Your task to perform on an android device: Go to location settings Image 0: 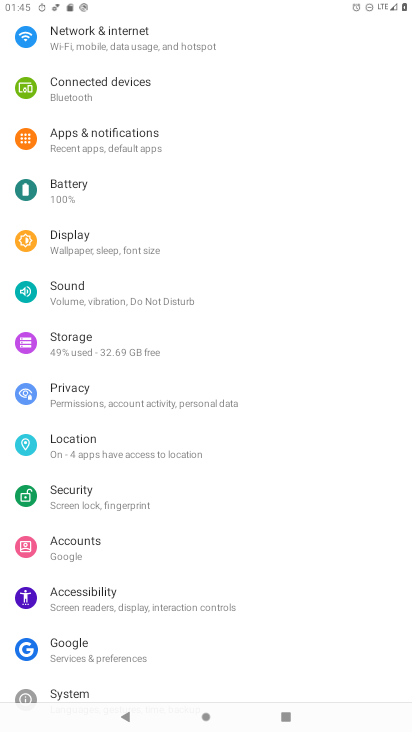
Step 0: click (111, 437)
Your task to perform on an android device: Go to location settings Image 1: 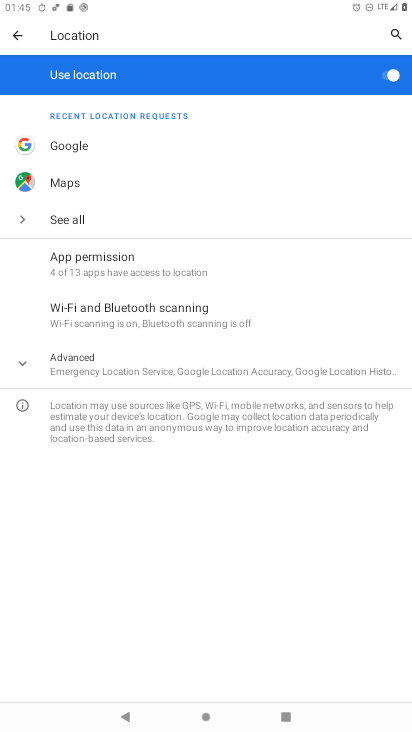
Step 1: task complete